Your task to perform on an android device: Open the stopwatch Image 0: 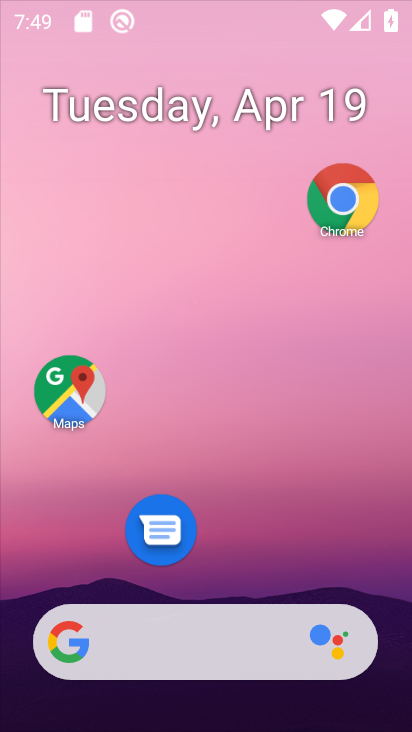
Step 0: drag from (248, 529) to (381, 43)
Your task to perform on an android device: Open the stopwatch Image 1: 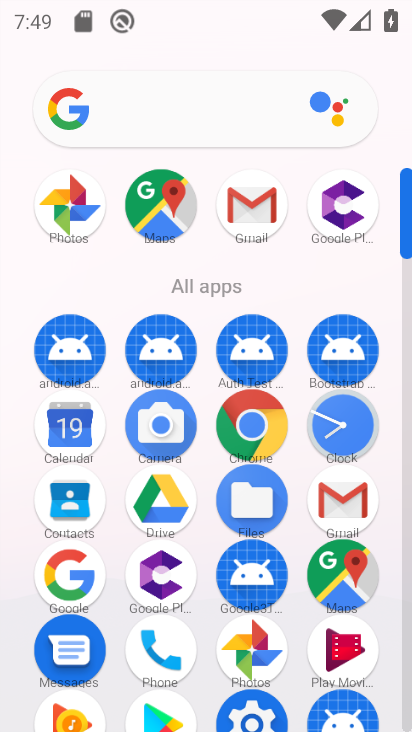
Step 1: click (353, 413)
Your task to perform on an android device: Open the stopwatch Image 2: 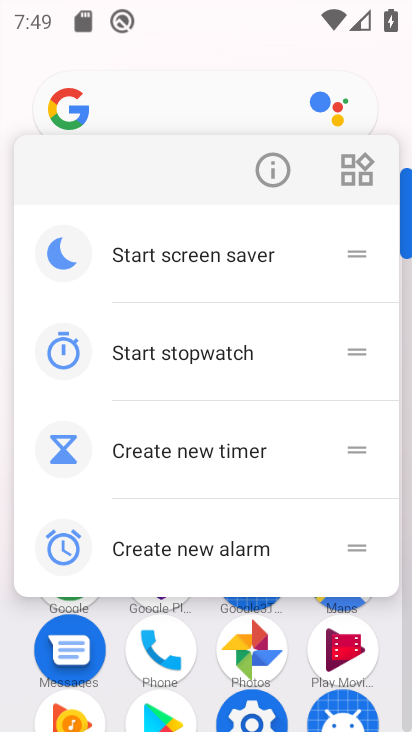
Step 2: click (283, 161)
Your task to perform on an android device: Open the stopwatch Image 3: 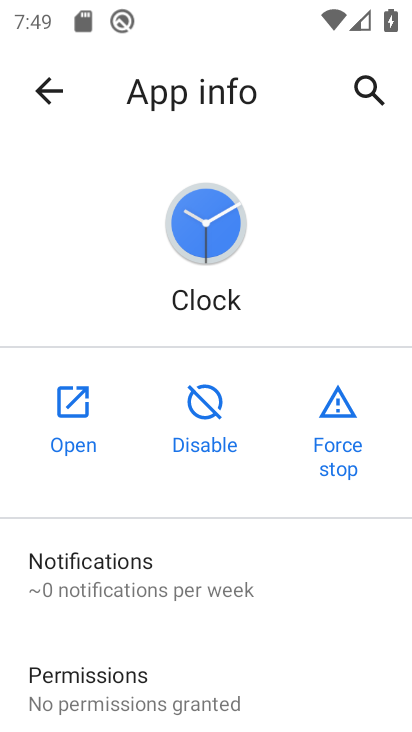
Step 3: click (92, 408)
Your task to perform on an android device: Open the stopwatch Image 4: 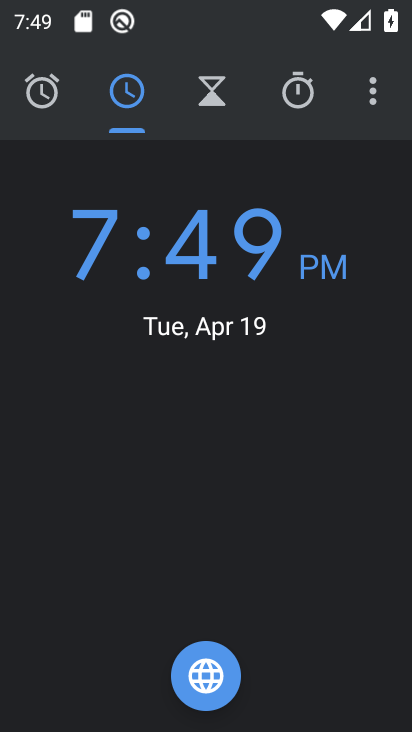
Step 4: click (293, 106)
Your task to perform on an android device: Open the stopwatch Image 5: 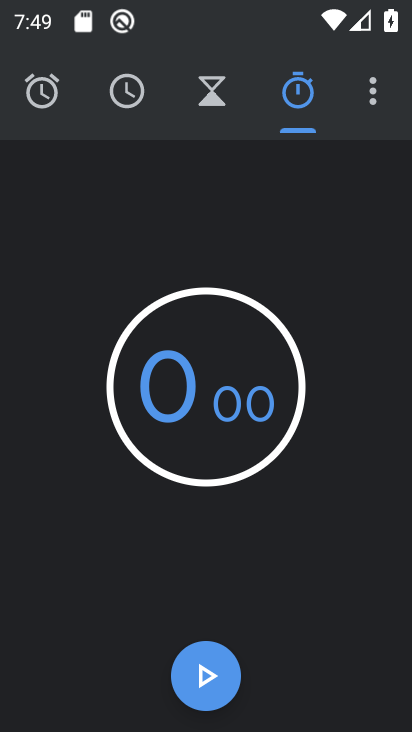
Step 5: task complete